Your task to perform on an android device: make emails show in primary in the gmail app Image 0: 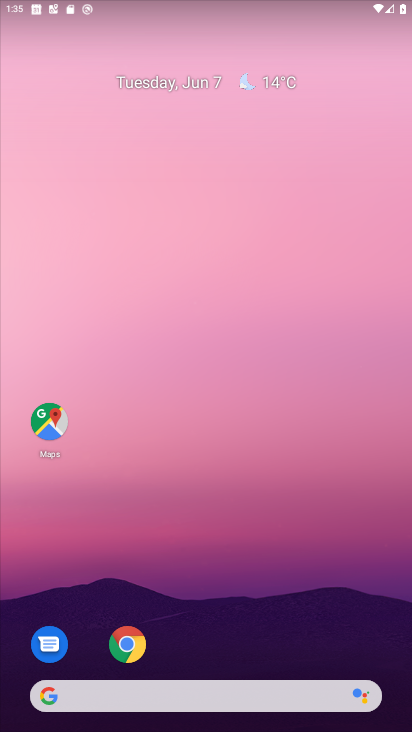
Step 0: drag from (253, 636) to (270, 21)
Your task to perform on an android device: make emails show in primary in the gmail app Image 1: 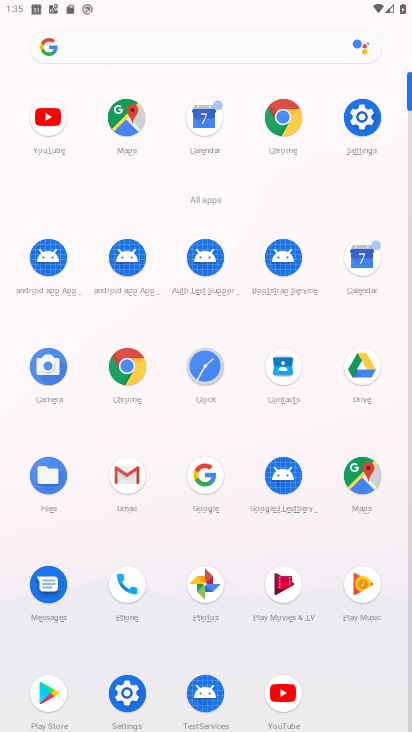
Step 1: click (130, 476)
Your task to perform on an android device: make emails show in primary in the gmail app Image 2: 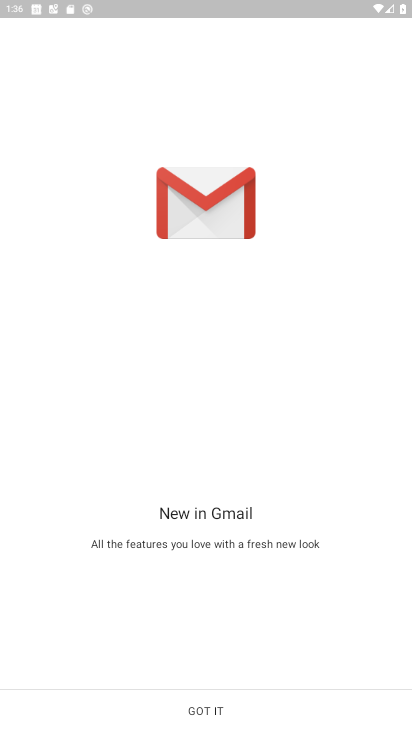
Step 2: click (225, 704)
Your task to perform on an android device: make emails show in primary in the gmail app Image 3: 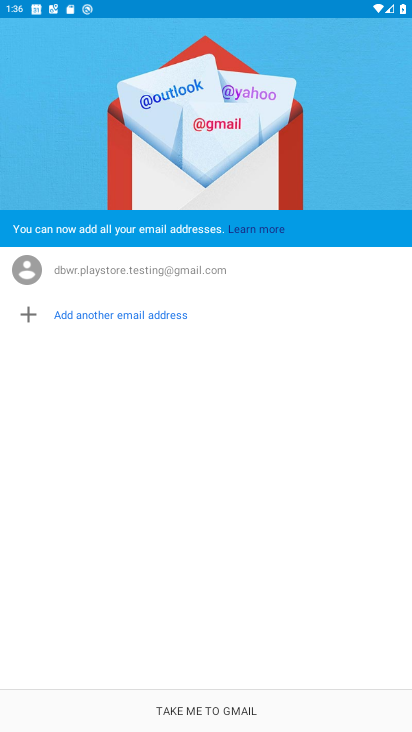
Step 3: click (232, 715)
Your task to perform on an android device: make emails show in primary in the gmail app Image 4: 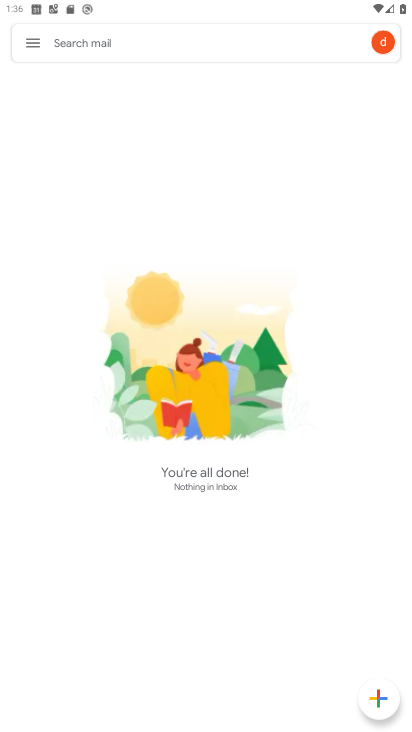
Step 4: click (49, 62)
Your task to perform on an android device: make emails show in primary in the gmail app Image 5: 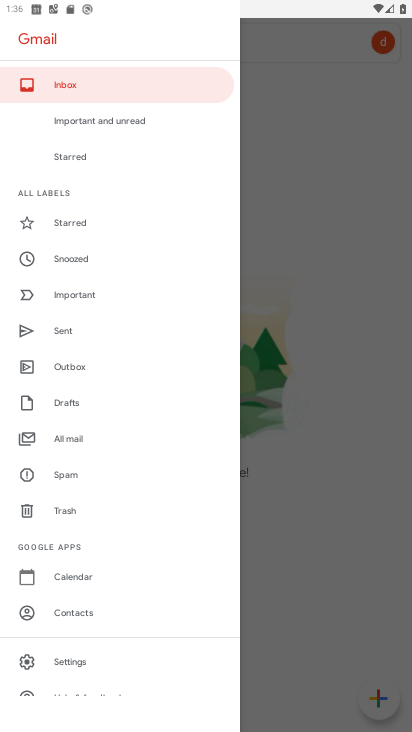
Step 5: click (52, 662)
Your task to perform on an android device: make emails show in primary in the gmail app Image 6: 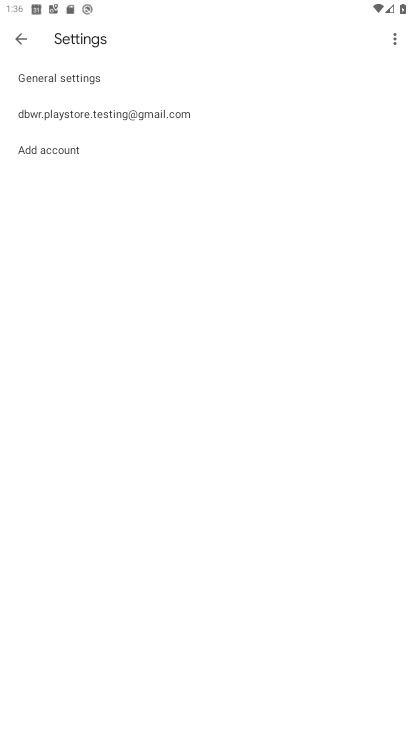
Step 6: click (124, 104)
Your task to perform on an android device: make emails show in primary in the gmail app Image 7: 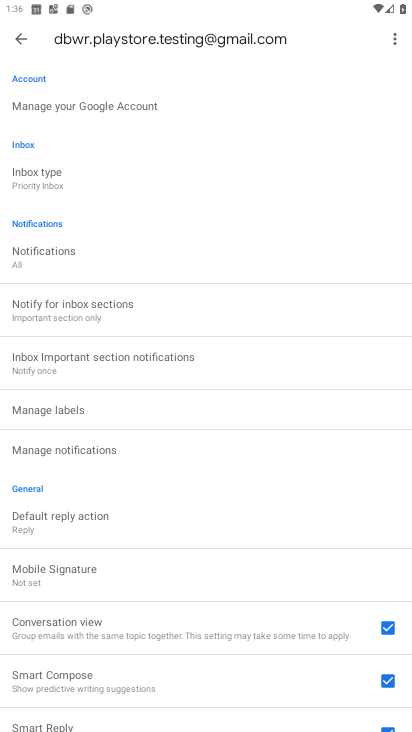
Step 7: click (29, 181)
Your task to perform on an android device: make emails show in primary in the gmail app Image 8: 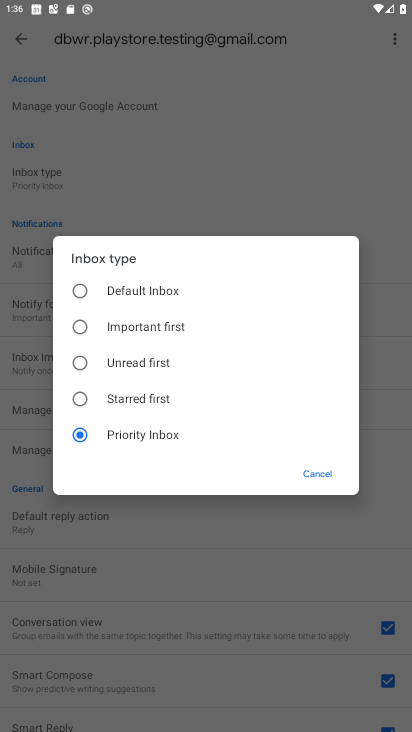
Step 8: click (157, 293)
Your task to perform on an android device: make emails show in primary in the gmail app Image 9: 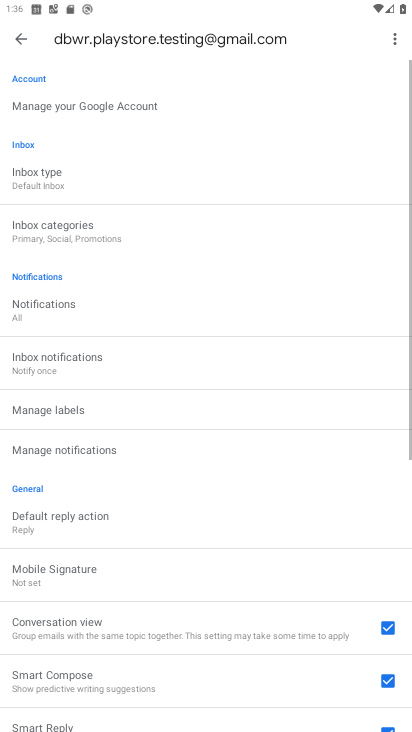
Step 9: task complete